Your task to perform on an android device: Open the calendar and show me this week's events Image 0: 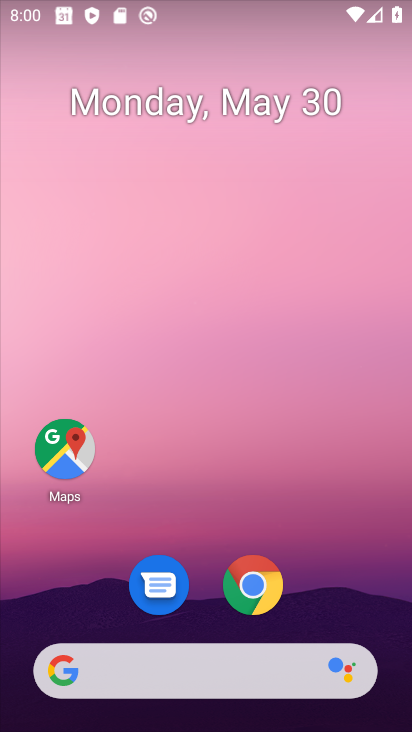
Step 0: drag from (198, 486) to (197, 1)
Your task to perform on an android device: Open the calendar and show me this week's events Image 1: 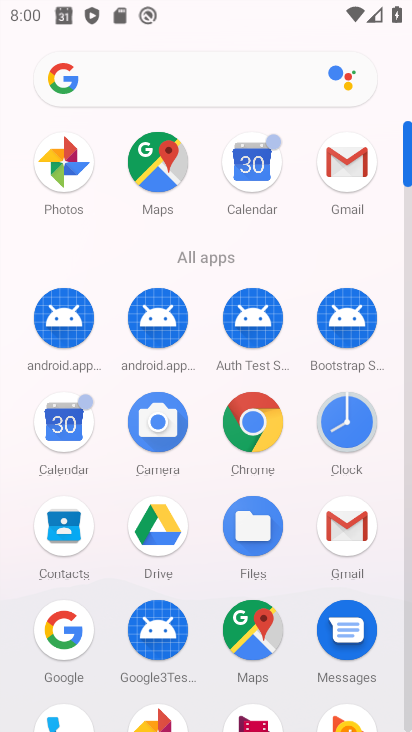
Step 1: click (247, 159)
Your task to perform on an android device: Open the calendar and show me this week's events Image 2: 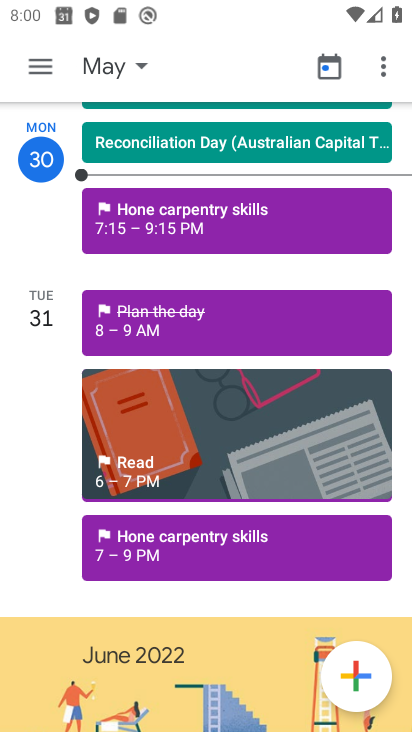
Step 2: click (44, 66)
Your task to perform on an android device: Open the calendar and show me this week's events Image 3: 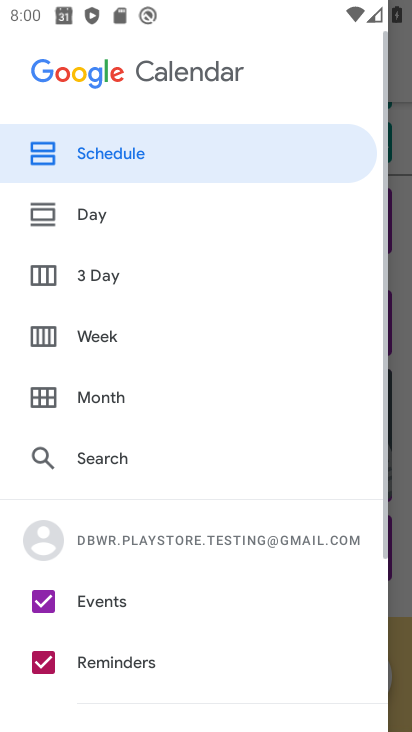
Step 3: click (40, 336)
Your task to perform on an android device: Open the calendar and show me this week's events Image 4: 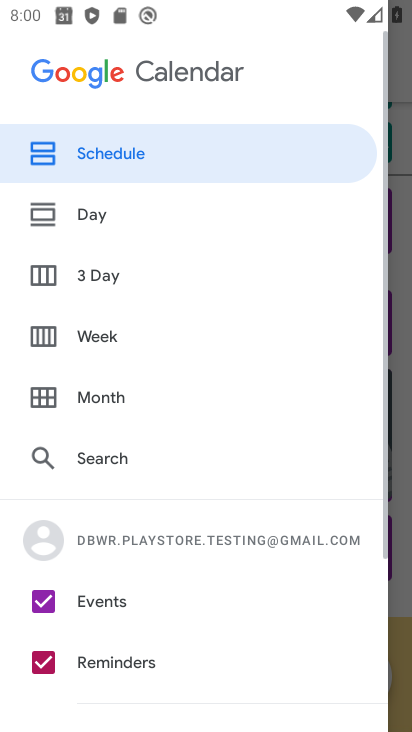
Step 4: click (41, 331)
Your task to perform on an android device: Open the calendar and show me this week's events Image 5: 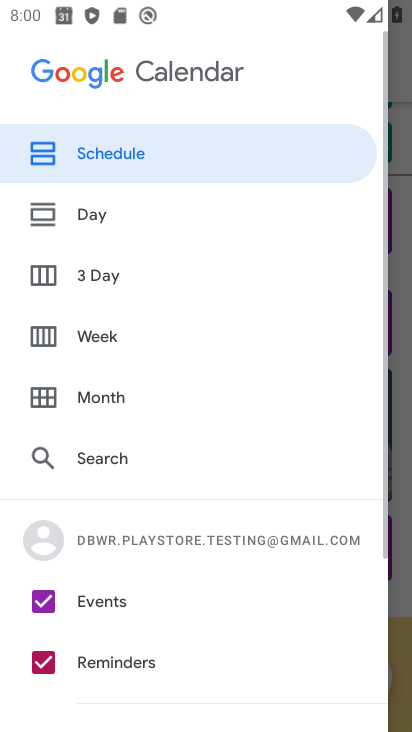
Step 5: click (82, 328)
Your task to perform on an android device: Open the calendar and show me this week's events Image 6: 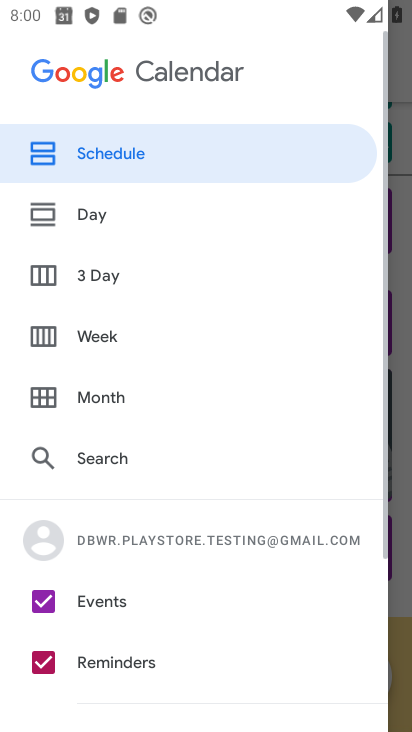
Step 6: click (44, 331)
Your task to perform on an android device: Open the calendar and show me this week's events Image 7: 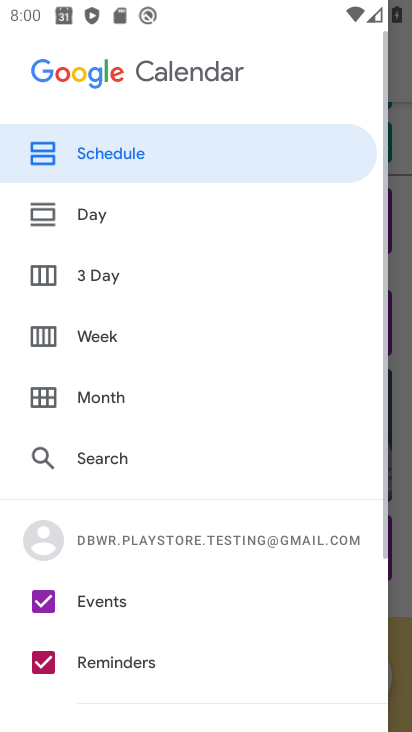
Step 7: click (44, 331)
Your task to perform on an android device: Open the calendar and show me this week's events Image 8: 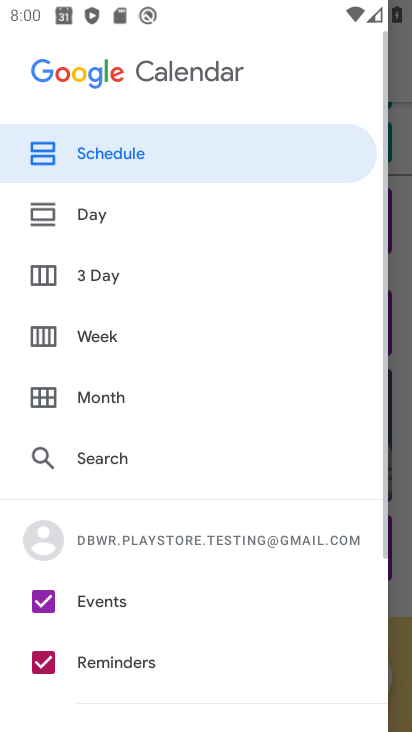
Step 8: click (44, 331)
Your task to perform on an android device: Open the calendar and show me this week's events Image 9: 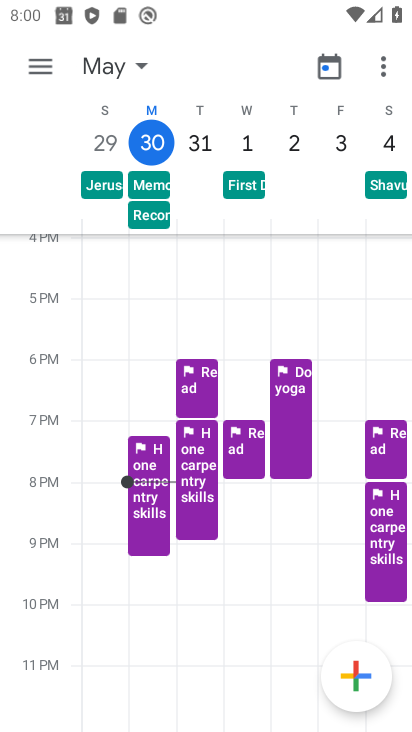
Step 9: task complete